Your task to perform on an android device: Open Wikipedia Image 0: 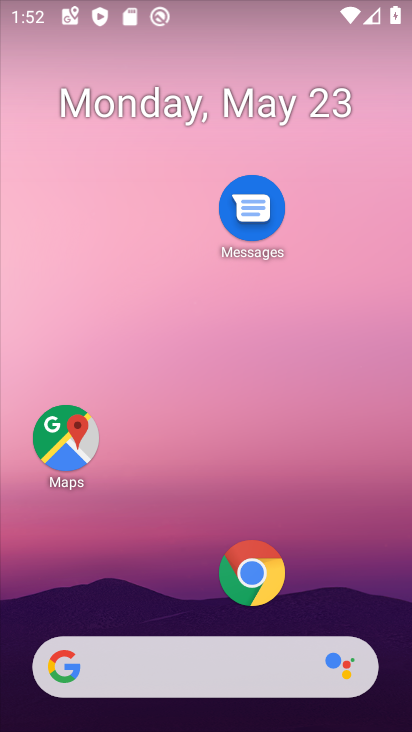
Step 0: drag from (192, 522) to (227, 50)
Your task to perform on an android device: Open Wikipedia Image 1: 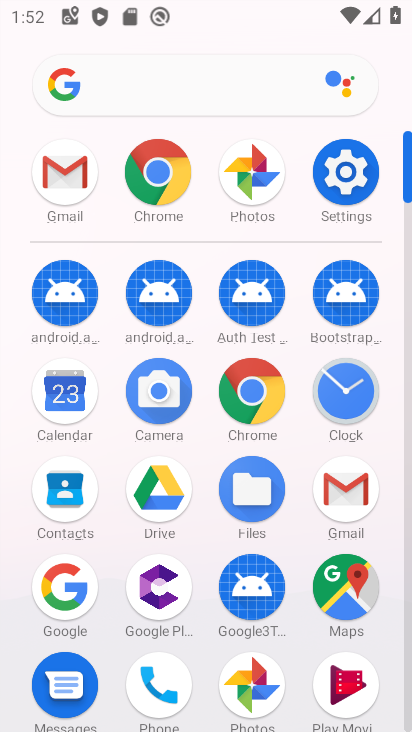
Step 1: click (163, 178)
Your task to perform on an android device: Open Wikipedia Image 2: 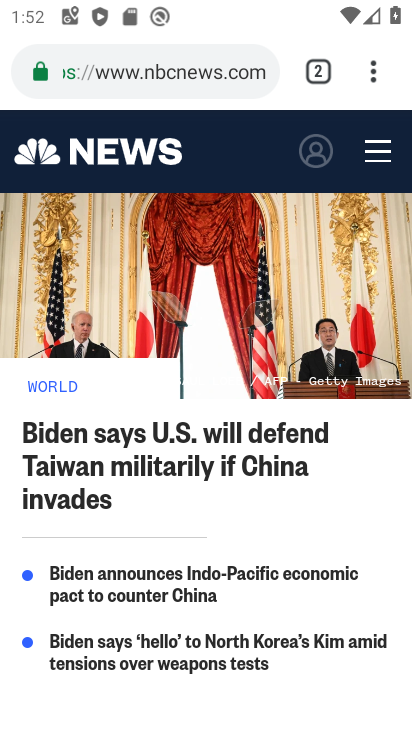
Step 2: click (260, 69)
Your task to perform on an android device: Open Wikipedia Image 3: 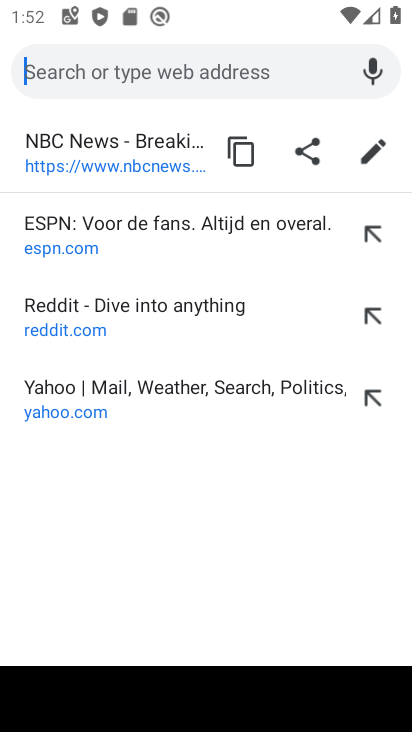
Step 3: type "wikipedia"
Your task to perform on an android device: Open Wikipedia Image 4: 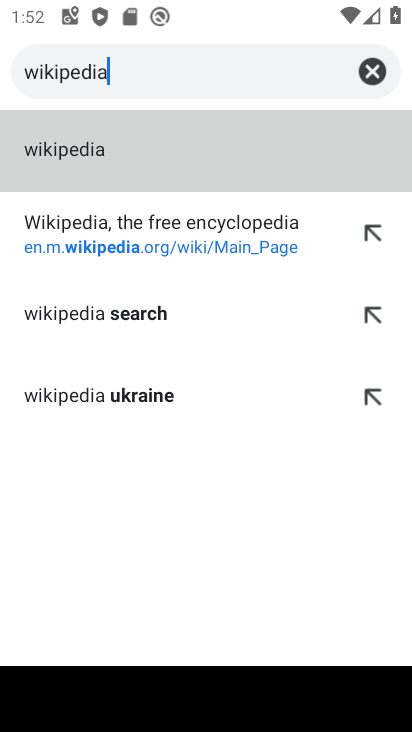
Step 4: click (138, 161)
Your task to perform on an android device: Open Wikipedia Image 5: 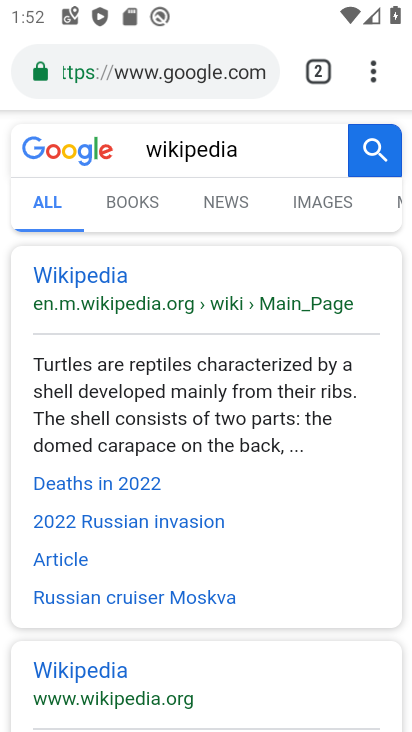
Step 5: click (87, 269)
Your task to perform on an android device: Open Wikipedia Image 6: 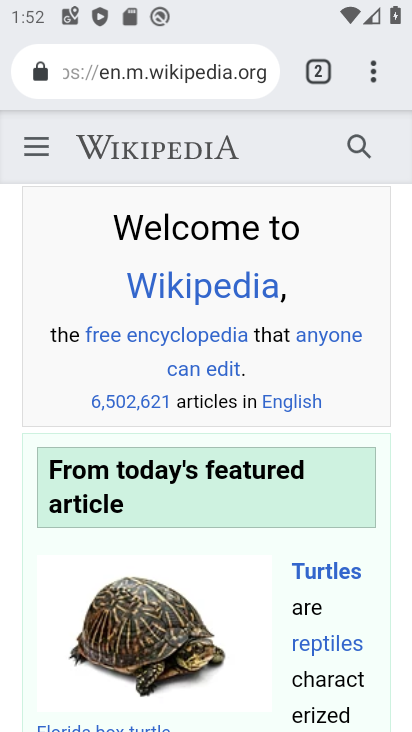
Step 6: task complete